Your task to perform on an android device: turn off location history Image 0: 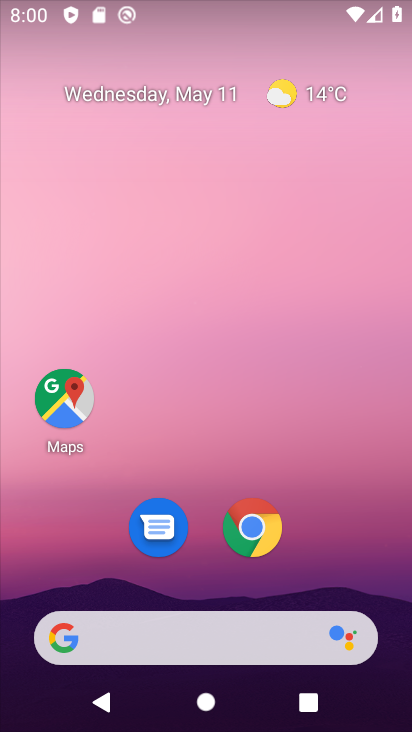
Step 0: click (67, 416)
Your task to perform on an android device: turn off location history Image 1: 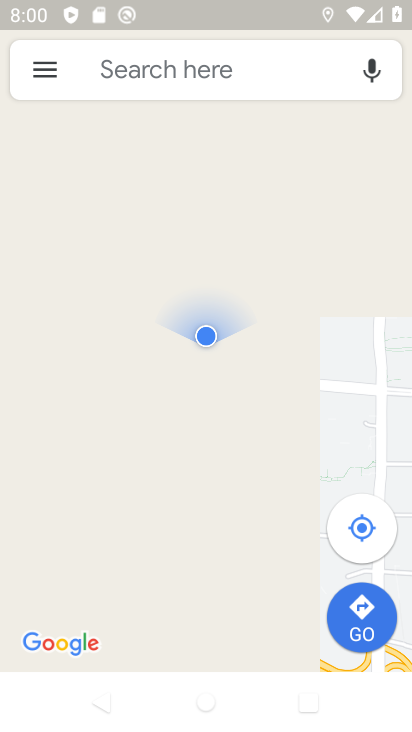
Step 1: click (52, 77)
Your task to perform on an android device: turn off location history Image 2: 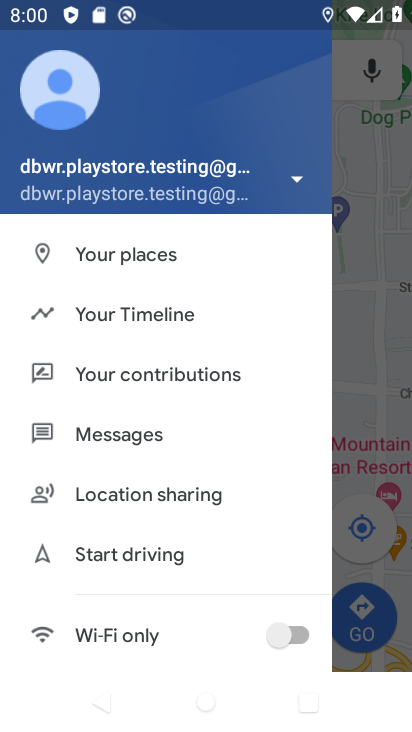
Step 2: click (111, 316)
Your task to perform on an android device: turn off location history Image 3: 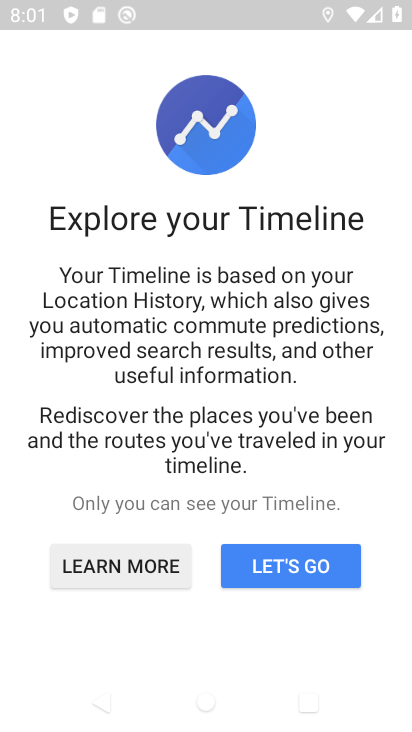
Step 3: click (276, 573)
Your task to perform on an android device: turn off location history Image 4: 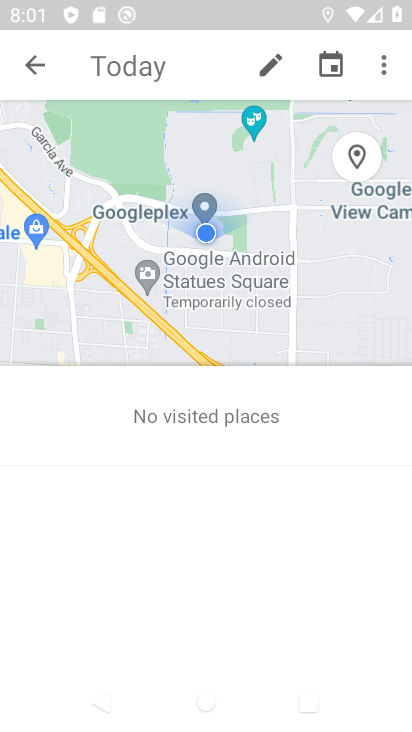
Step 4: click (382, 74)
Your task to perform on an android device: turn off location history Image 5: 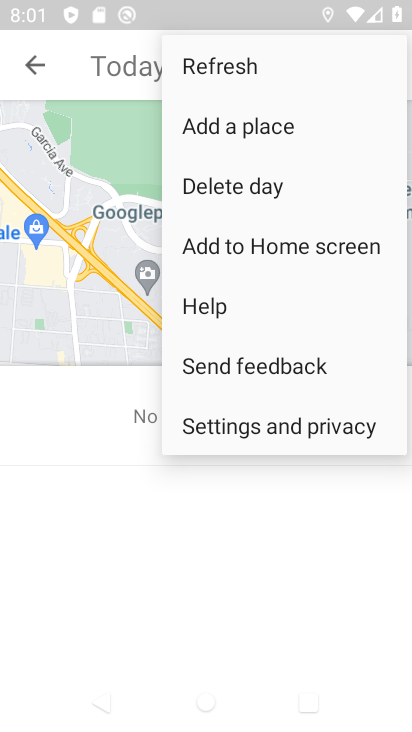
Step 5: click (231, 429)
Your task to perform on an android device: turn off location history Image 6: 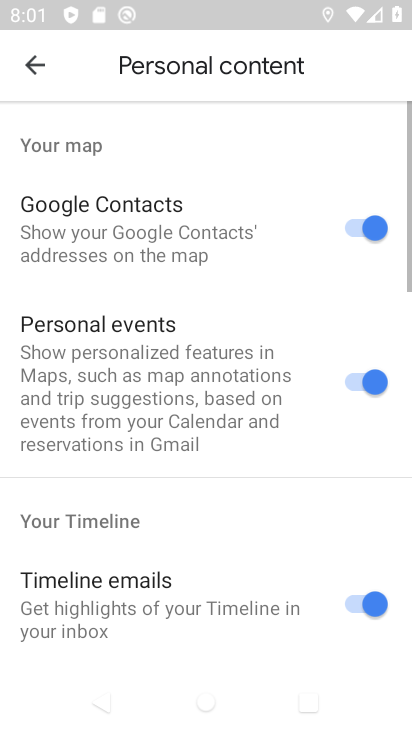
Step 6: drag from (196, 574) to (192, 135)
Your task to perform on an android device: turn off location history Image 7: 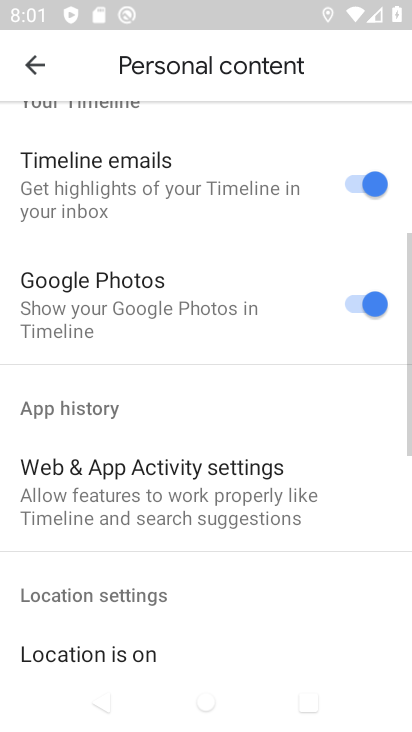
Step 7: drag from (211, 529) to (181, 90)
Your task to perform on an android device: turn off location history Image 8: 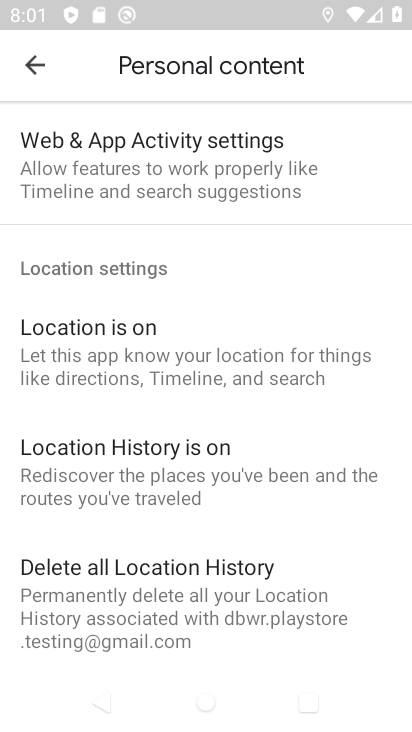
Step 8: click (145, 476)
Your task to perform on an android device: turn off location history Image 9: 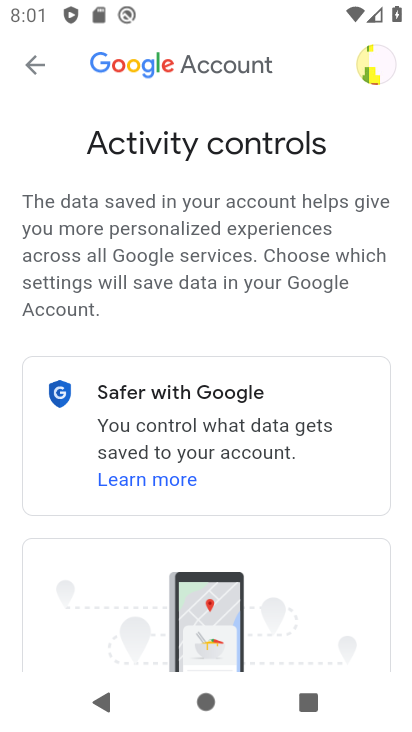
Step 9: drag from (156, 535) to (150, 138)
Your task to perform on an android device: turn off location history Image 10: 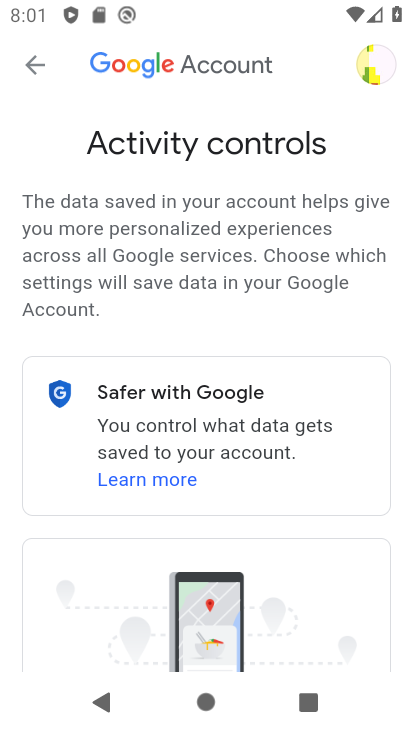
Step 10: drag from (224, 379) to (214, 147)
Your task to perform on an android device: turn off location history Image 11: 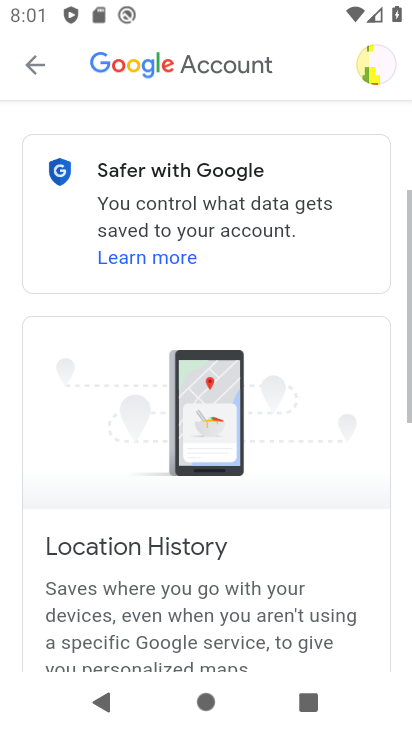
Step 11: drag from (210, 579) to (209, 157)
Your task to perform on an android device: turn off location history Image 12: 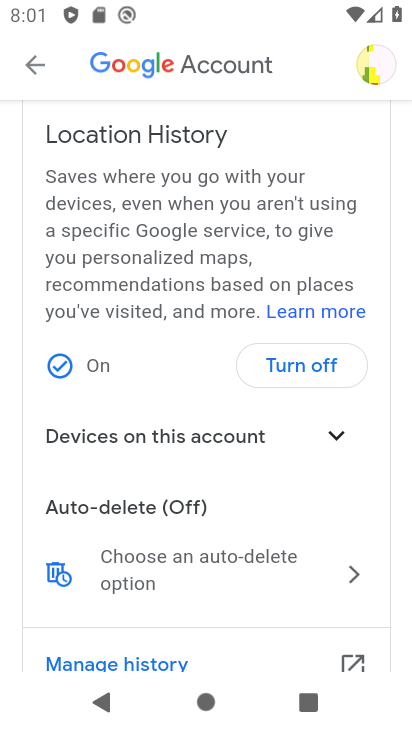
Step 12: click (295, 379)
Your task to perform on an android device: turn off location history Image 13: 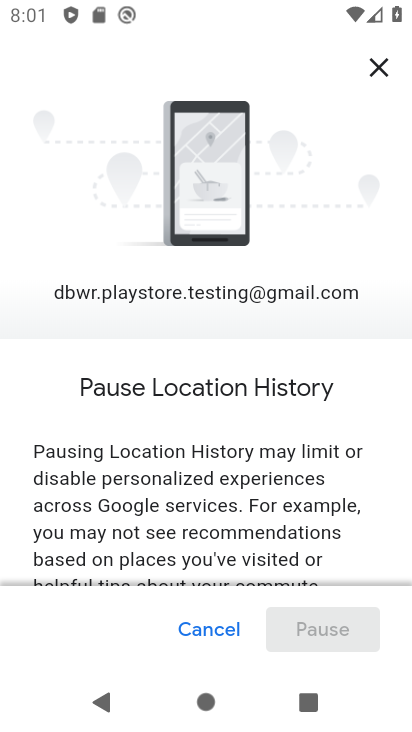
Step 13: drag from (177, 531) to (168, 135)
Your task to perform on an android device: turn off location history Image 14: 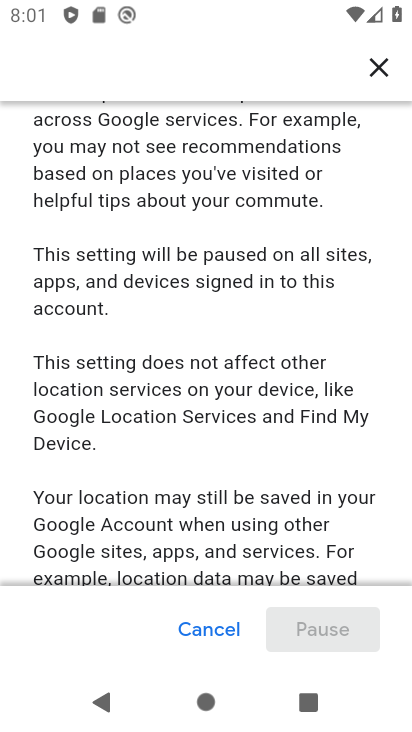
Step 14: drag from (205, 451) to (187, 87)
Your task to perform on an android device: turn off location history Image 15: 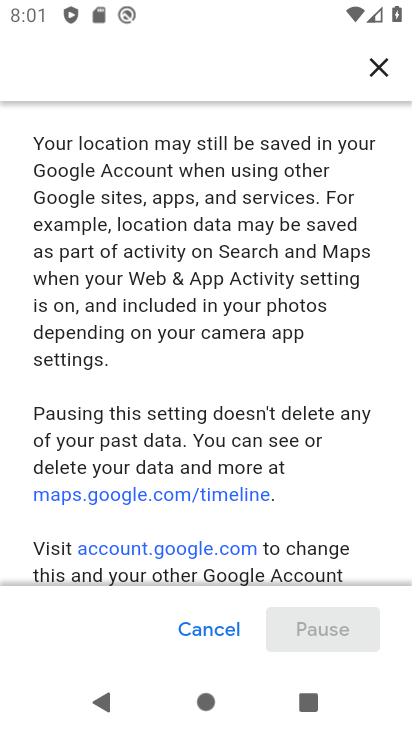
Step 15: drag from (196, 469) to (189, 86)
Your task to perform on an android device: turn off location history Image 16: 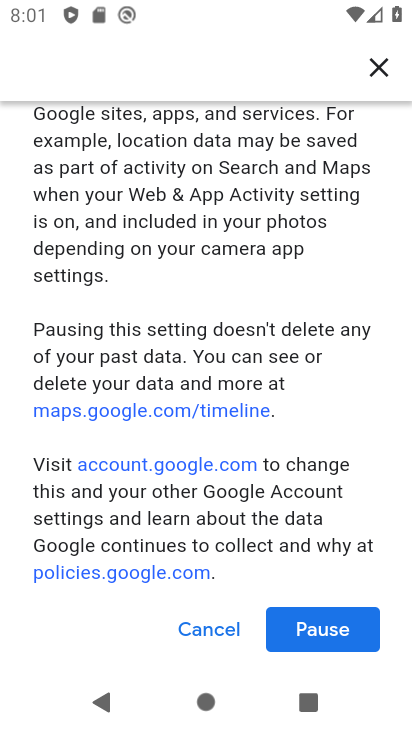
Step 16: click (319, 642)
Your task to perform on an android device: turn off location history Image 17: 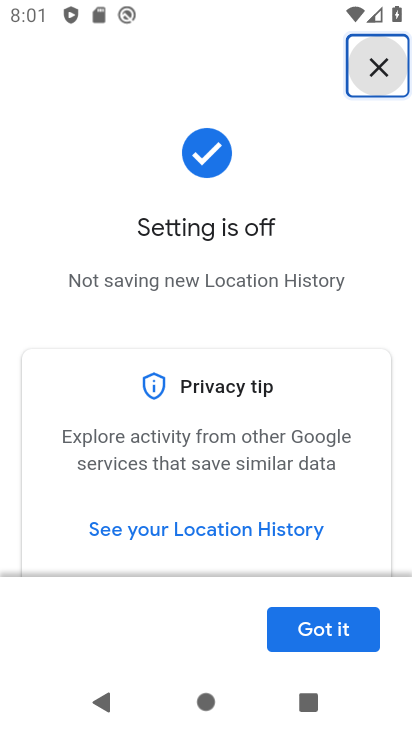
Step 17: click (324, 636)
Your task to perform on an android device: turn off location history Image 18: 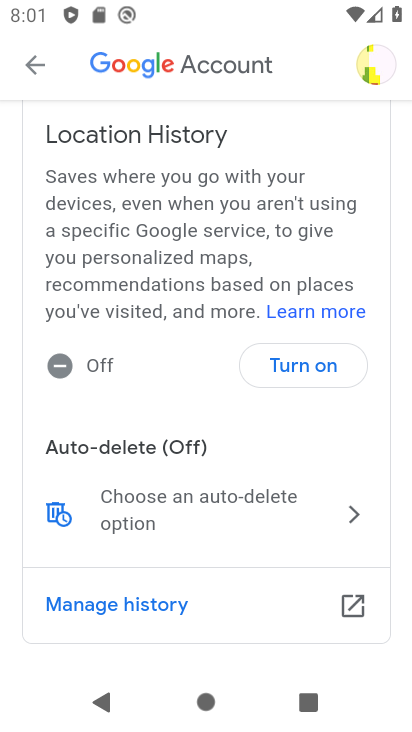
Step 18: task complete